Your task to perform on an android device: turn on priority inbox in the gmail app Image 0: 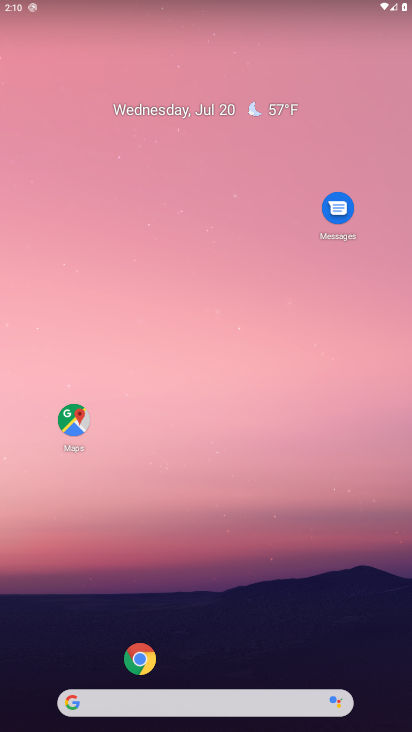
Step 0: drag from (105, 540) to (250, 151)
Your task to perform on an android device: turn on priority inbox in the gmail app Image 1: 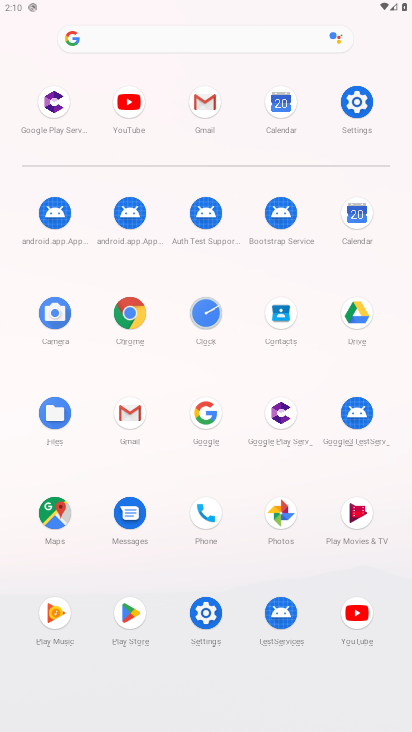
Step 1: click (140, 417)
Your task to perform on an android device: turn on priority inbox in the gmail app Image 2: 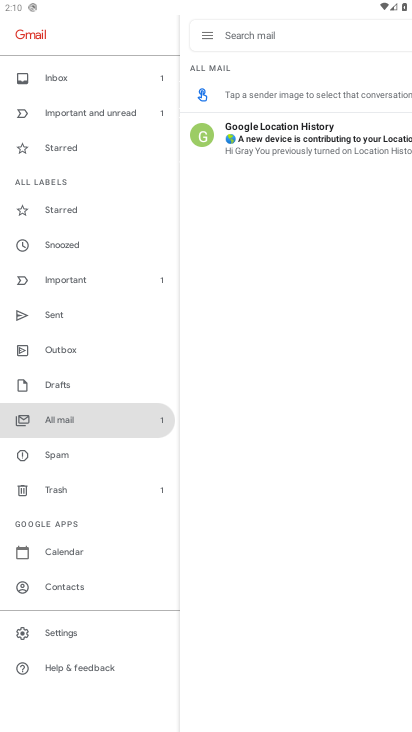
Step 2: click (71, 82)
Your task to perform on an android device: turn on priority inbox in the gmail app Image 3: 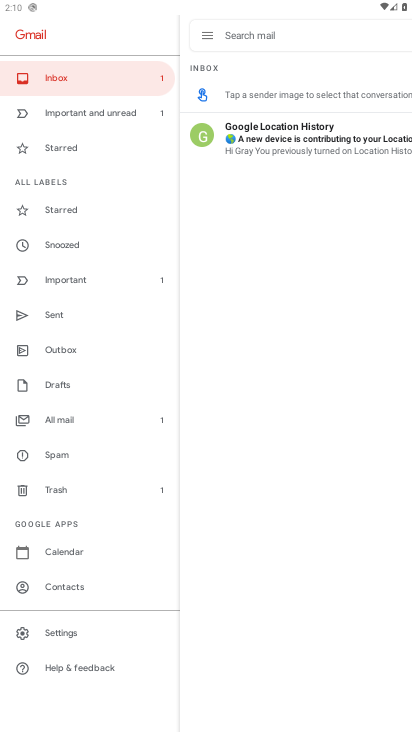
Step 3: click (84, 632)
Your task to perform on an android device: turn on priority inbox in the gmail app Image 4: 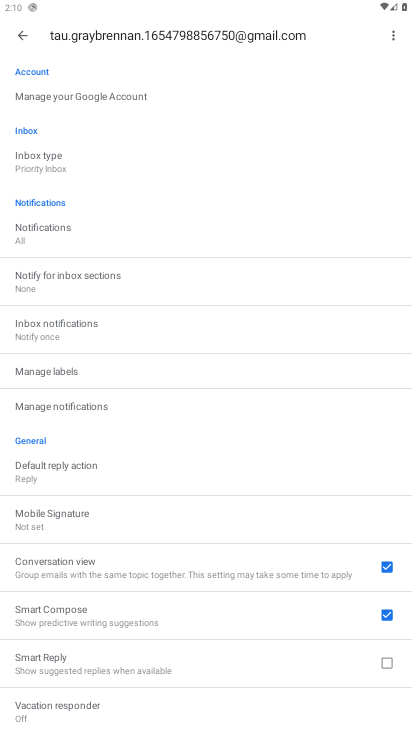
Step 4: task complete